Your task to perform on an android device: toggle javascript in the chrome app Image 0: 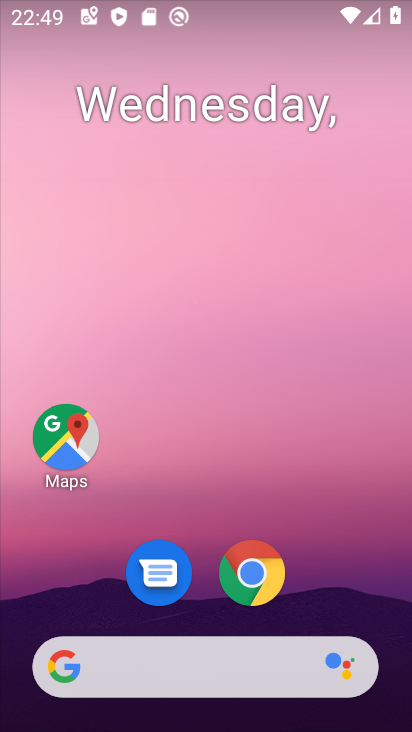
Step 0: click (249, 579)
Your task to perform on an android device: toggle javascript in the chrome app Image 1: 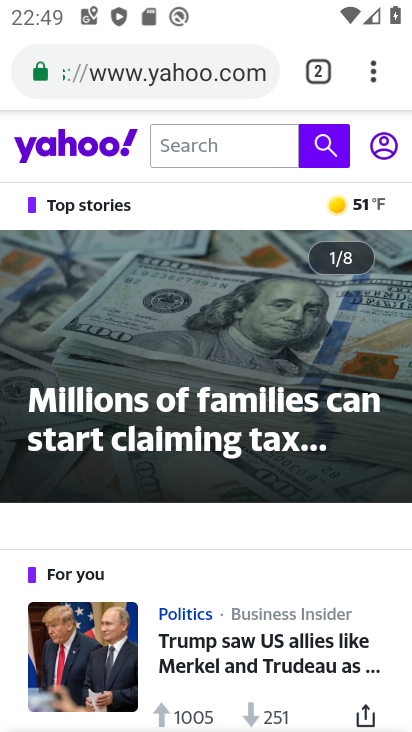
Step 1: click (375, 69)
Your task to perform on an android device: toggle javascript in the chrome app Image 2: 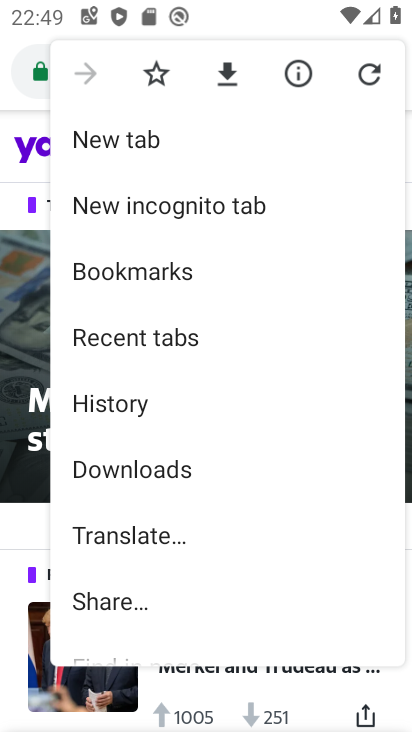
Step 2: drag from (189, 543) to (199, 232)
Your task to perform on an android device: toggle javascript in the chrome app Image 3: 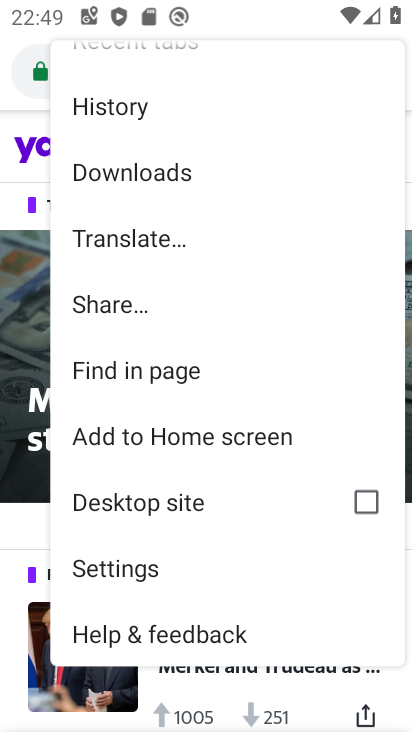
Step 3: click (123, 568)
Your task to perform on an android device: toggle javascript in the chrome app Image 4: 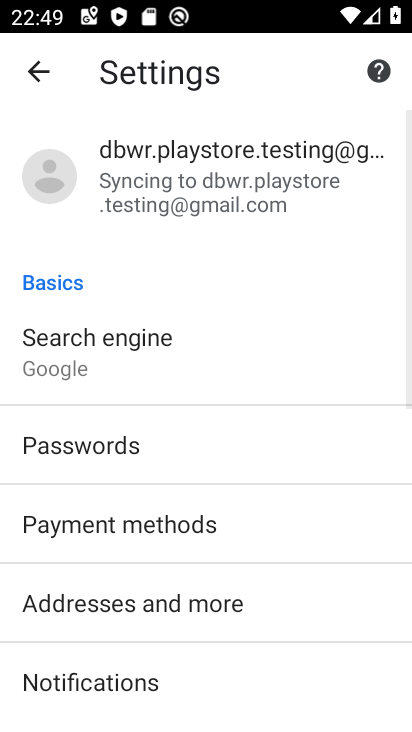
Step 4: drag from (168, 685) to (229, 282)
Your task to perform on an android device: toggle javascript in the chrome app Image 5: 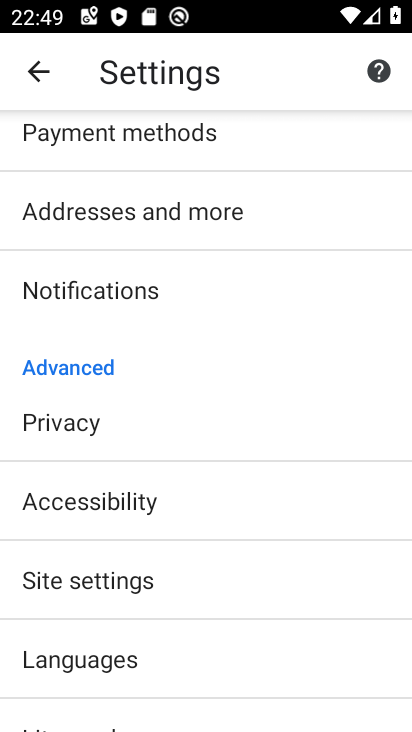
Step 5: drag from (185, 506) to (240, 323)
Your task to perform on an android device: toggle javascript in the chrome app Image 6: 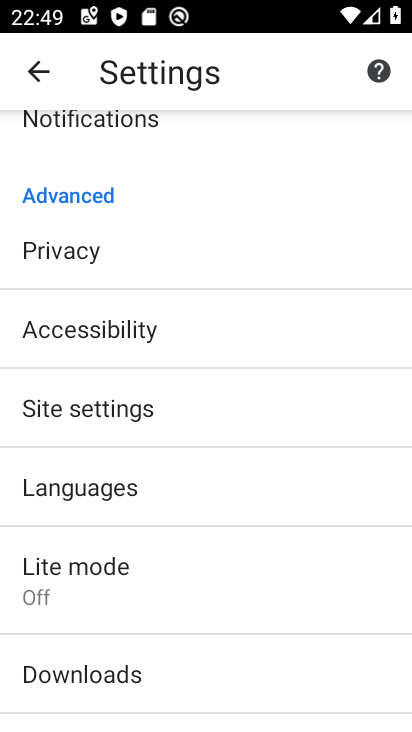
Step 6: click (85, 412)
Your task to perform on an android device: toggle javascript in the chrome app Image 7: 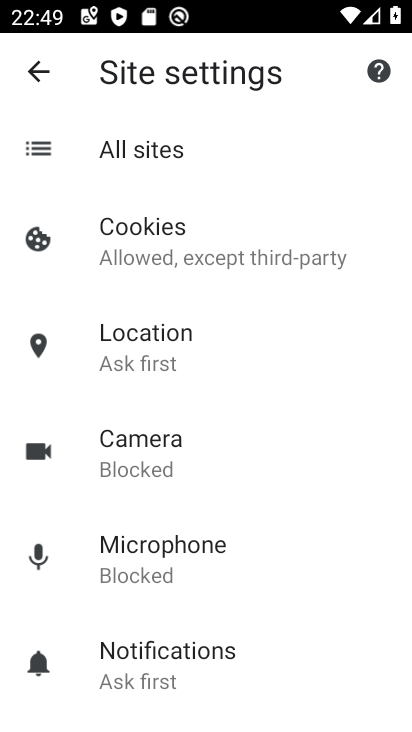
Step 7: drag from (141, 681) to (163, 369)
Your task to perform on an android device: toggle javascript in the chrome app Image 8: 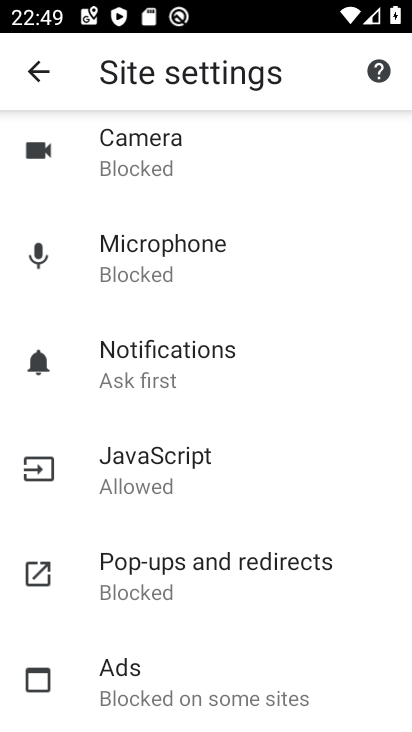
Step 8: click (166, 672)
Your task to perform on an android device: toggle javascript in the chrome app Image 9: 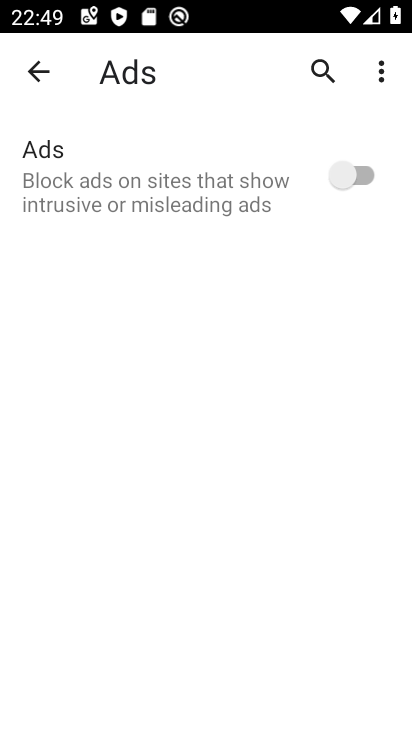
Step 9: click (43, 60)
Your task to perform on an android device: toggle javascript in the chrome app Image 10: 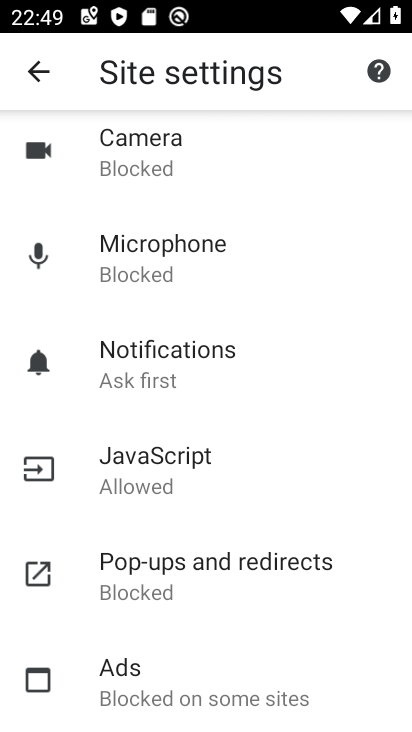
Step 10: click (162, 477)
Your task to perform on an android device: toggle javascript in the chrome app Image 11: 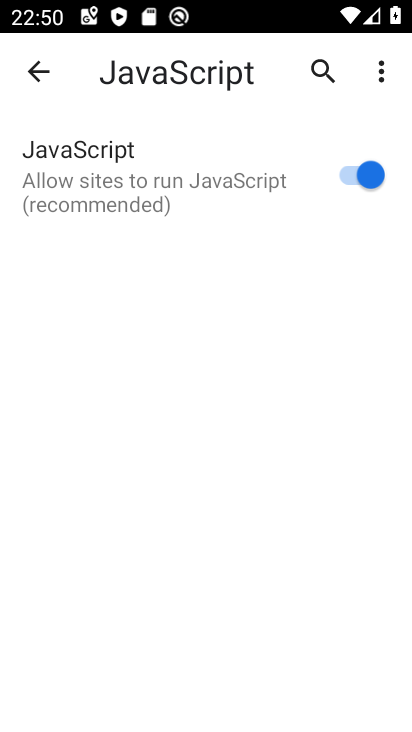
Step 11: click (352, 172)
Your task to perform on an android device: toggle javascript in the chrome app Image 12: 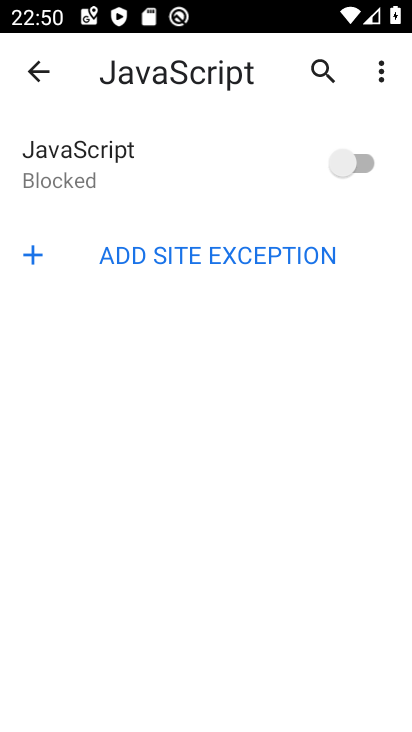
Step 12: task complete